Your task to perform on an android device: Open battery settings Image 0: 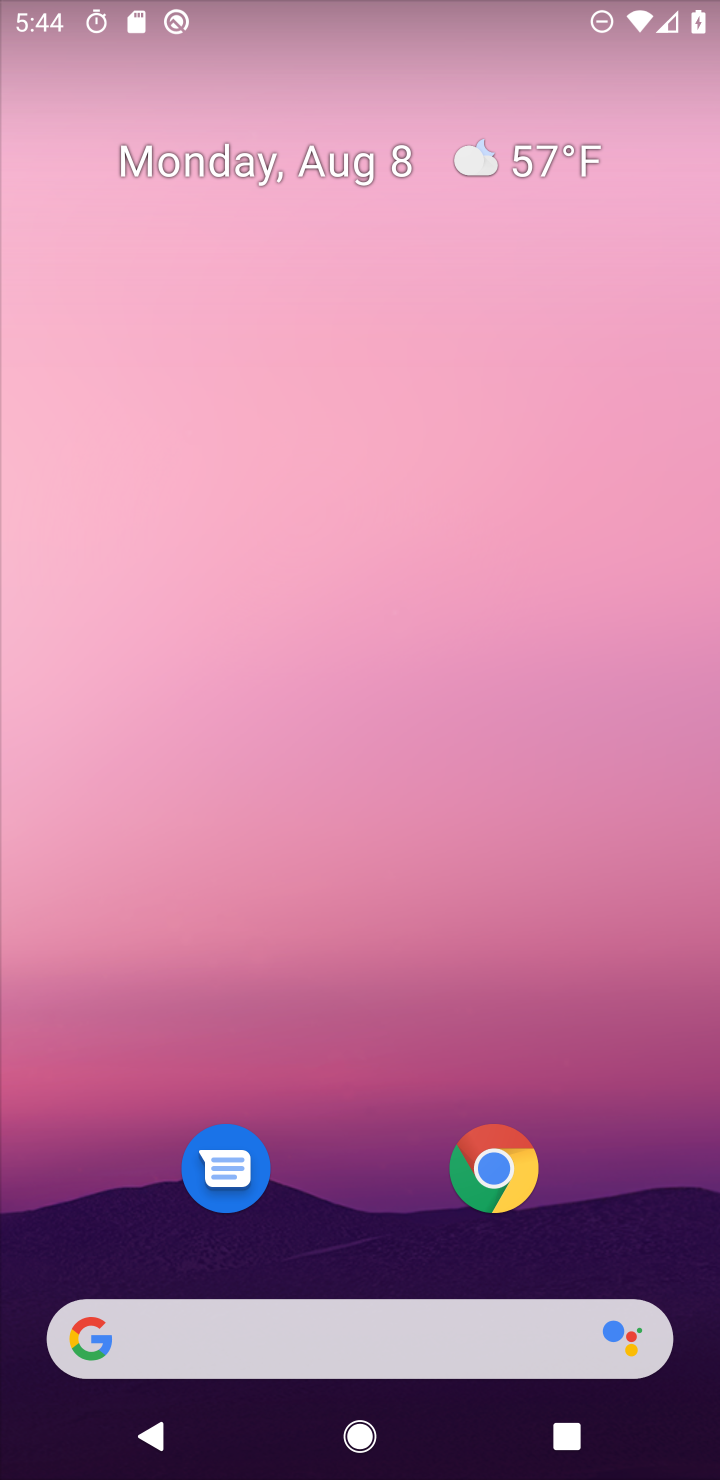
Step 0: drag from (363, 1320) to (382, 226)
Your task to perform on an android device: Open battery settings Image 1: 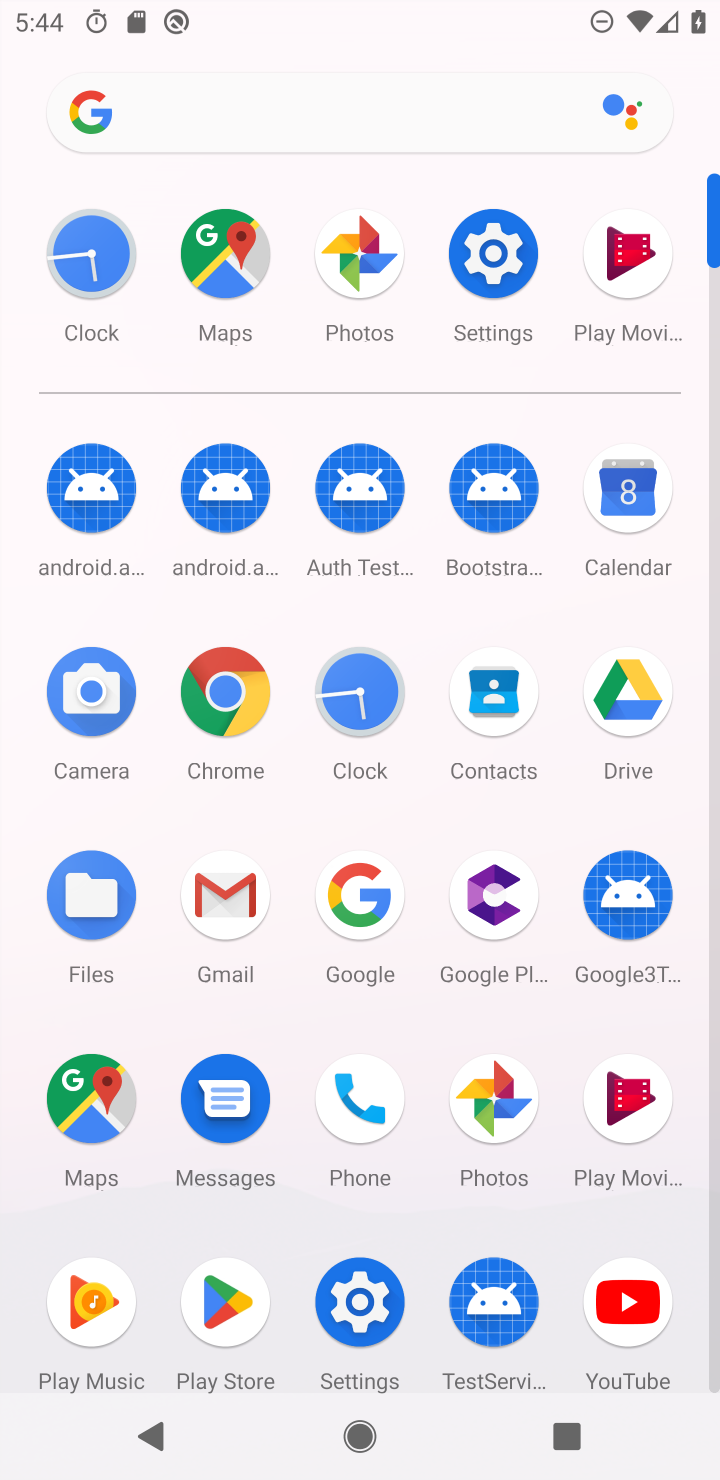
Step 1: click (480, 271)
Your task to perform on an android device: Open battery settings Image 2: 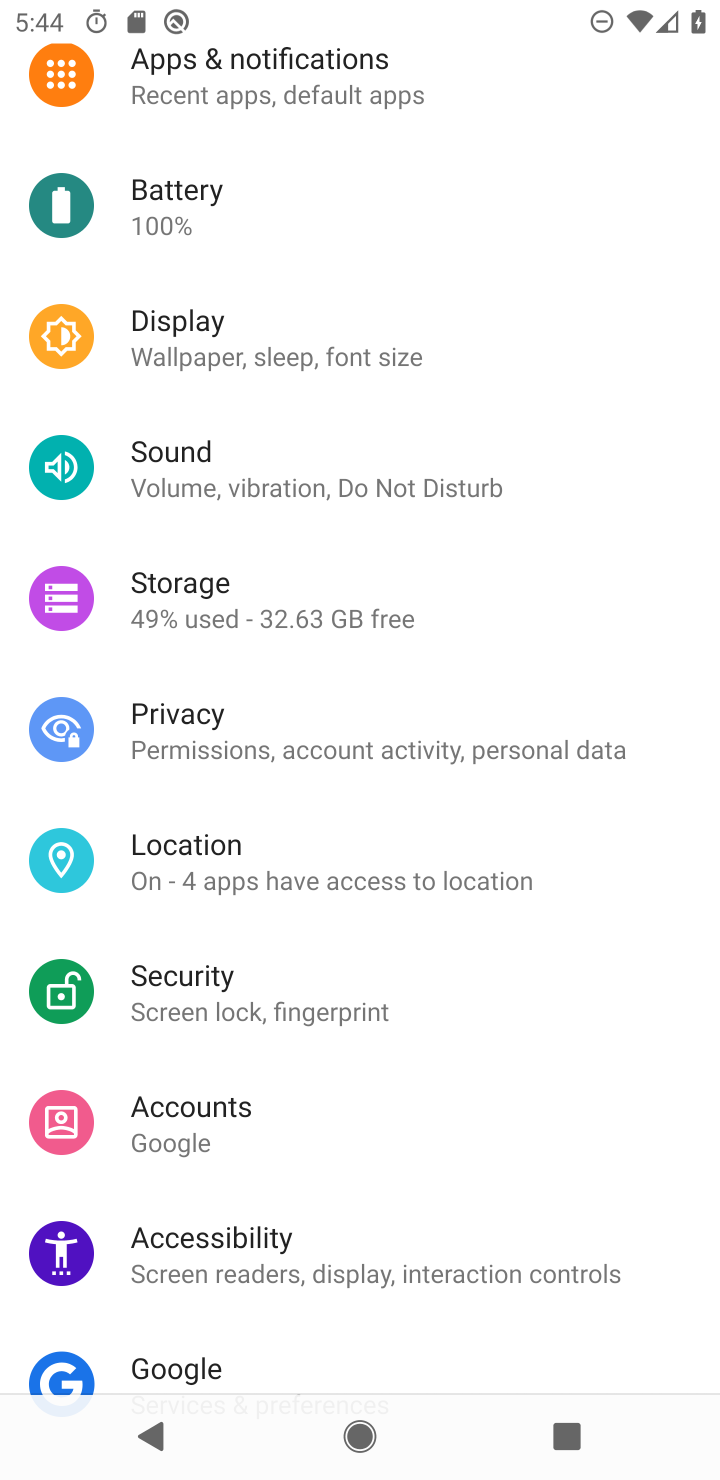
Step 2: click (228, 209)
Your task to perform on an android device: Open battery settings Image 3: 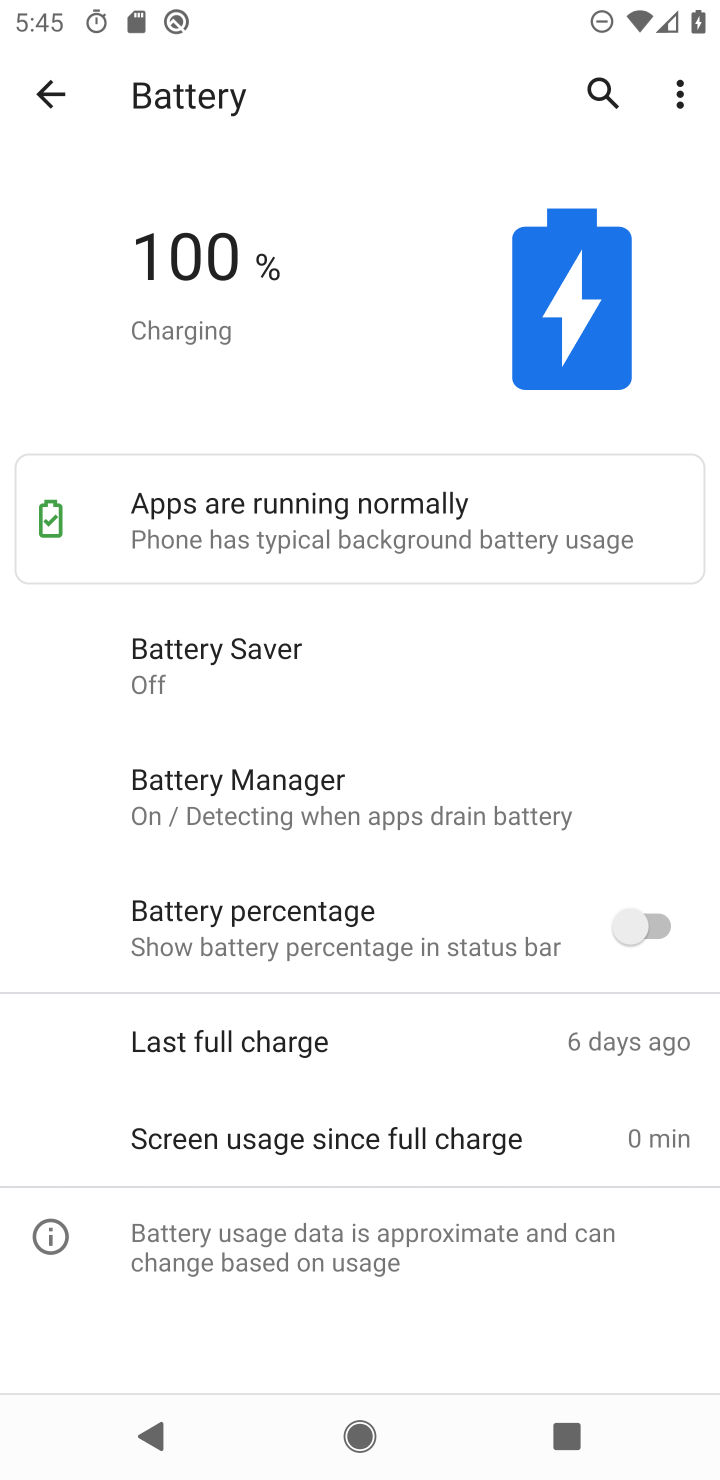
Step 3: task complete